Your task to perform on an android device: What's on my calendar today? Image 0: 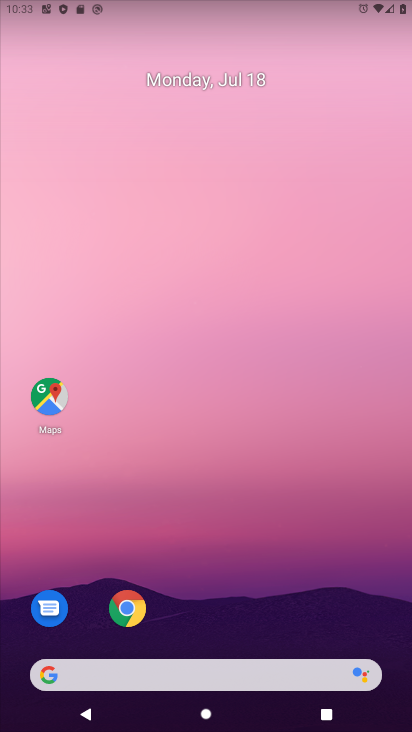
Step 0: drag from (28, 702) to (325, 129)
Your task to perform on an android device: What's on my calendar today? Image 1: 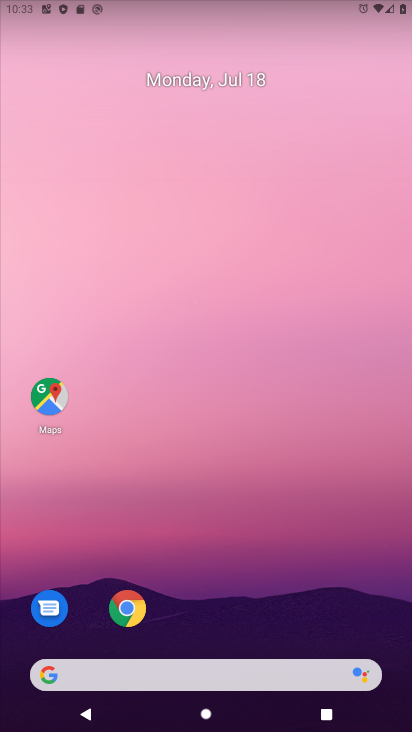
Step 1: drag from (41, 704) to (221, 100)
Your task to perform on an android device: What's on my calendar today? Image 2: 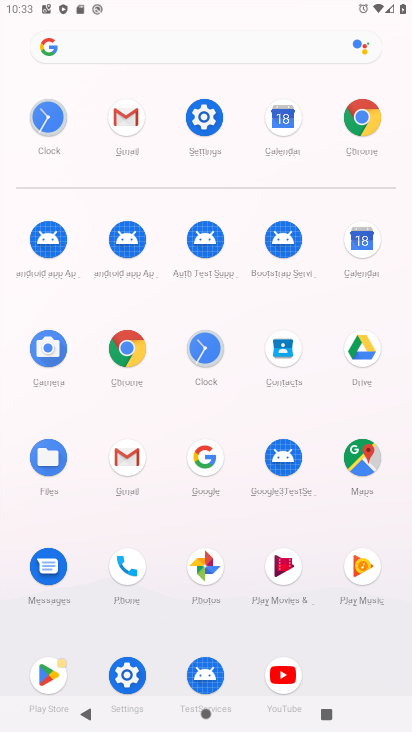
Step 2: click (357, 237)
Your task to perform on an android device: What's on my calendar today? Image 3: 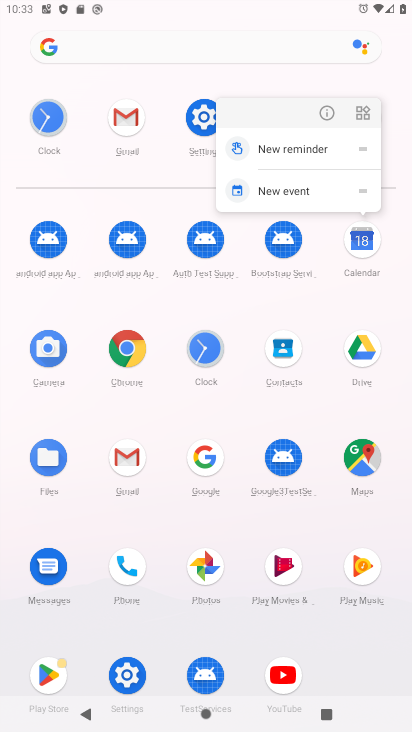
Step 3: click (363, 265)
Your task to perform on an android device: What's on my calendar today? Image 4: 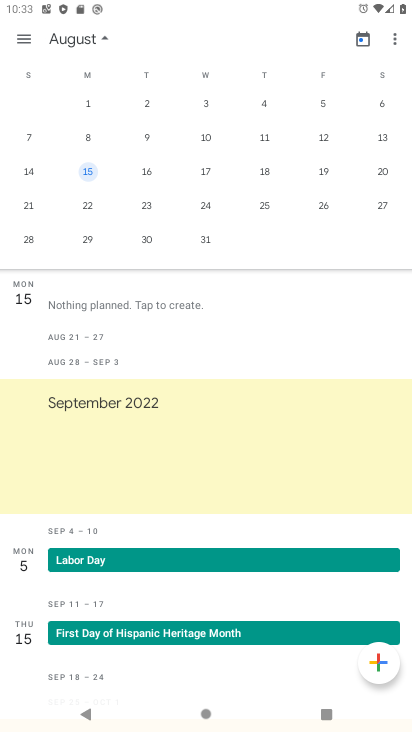
Step 4: task complete